Your task to perform on an android device: Add usb-a to the cart on walmart.com, then select checkout. Image 0: 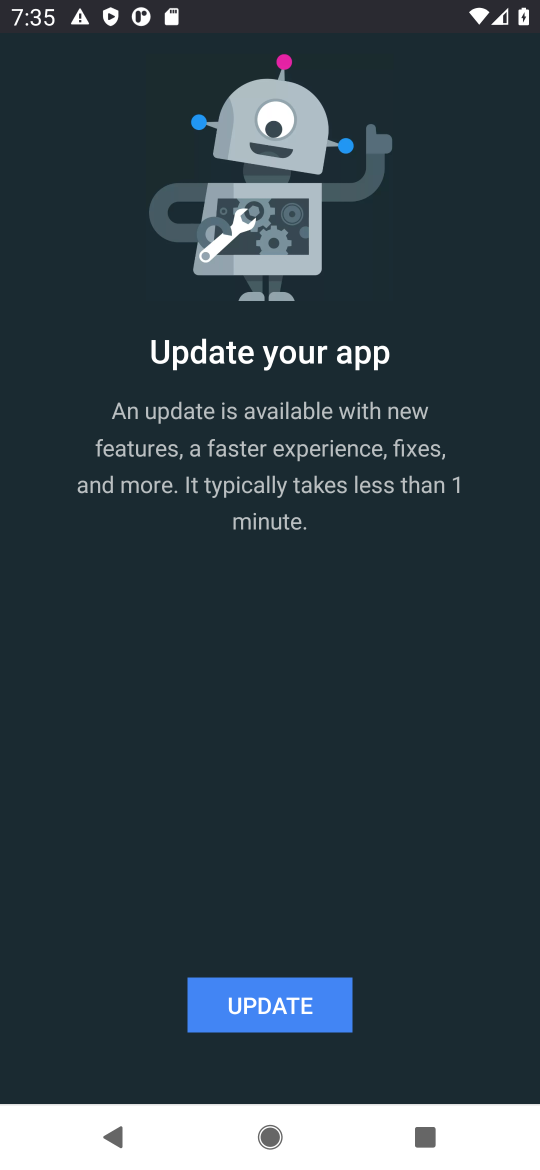
Step 0: press home button
Your task to perform on an android device: Add usb-a to the cart on walmart.com, then select checkout. Image 1: 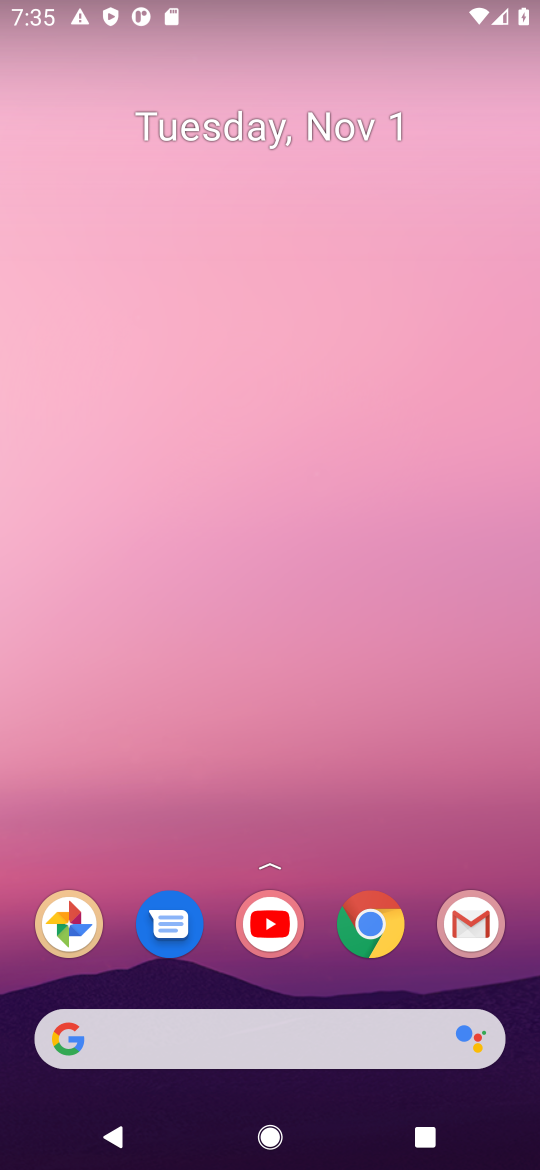
Step 1: click (108, 1041)
Your task to perform on an android device: Add usb-a to the cart on walmart.com, then select checkout. Image 2: 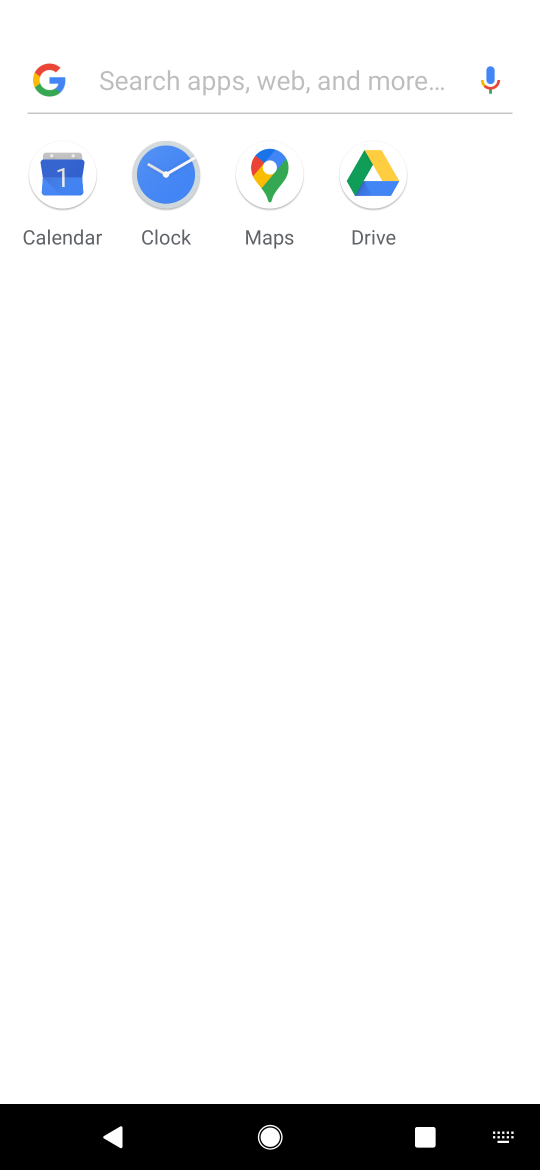
Step 2: type "walmart.com"
Your task to perform on an android device: Add usb-a to the cart on walmart.com, then select checkout. Image 3: 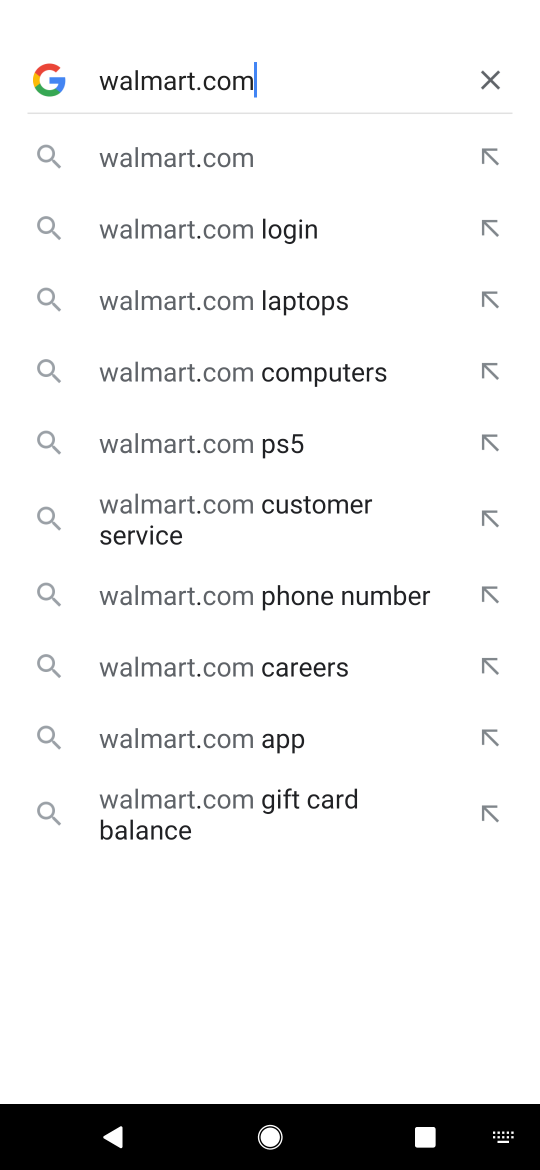
Step 3: press enter
Your task to perform on an android device: Add usb-a to the cart on walmart.com, then select checkout. Image 4: 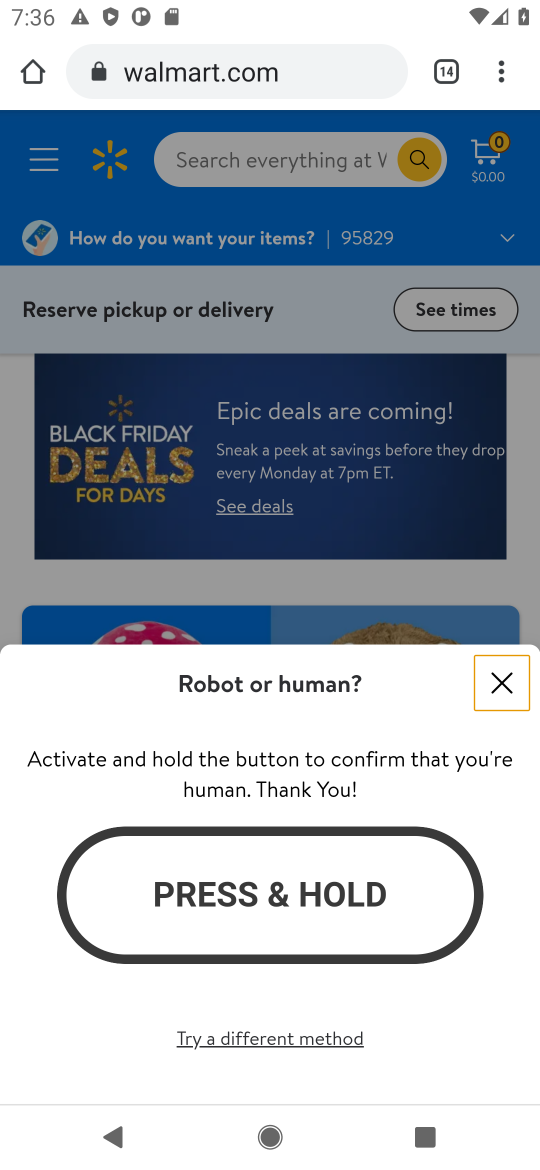
Step 4: click (189, 906)
Your task to perform on an android device: Add usb-a to the cart on walmart.com, then select checkout. Image 5: 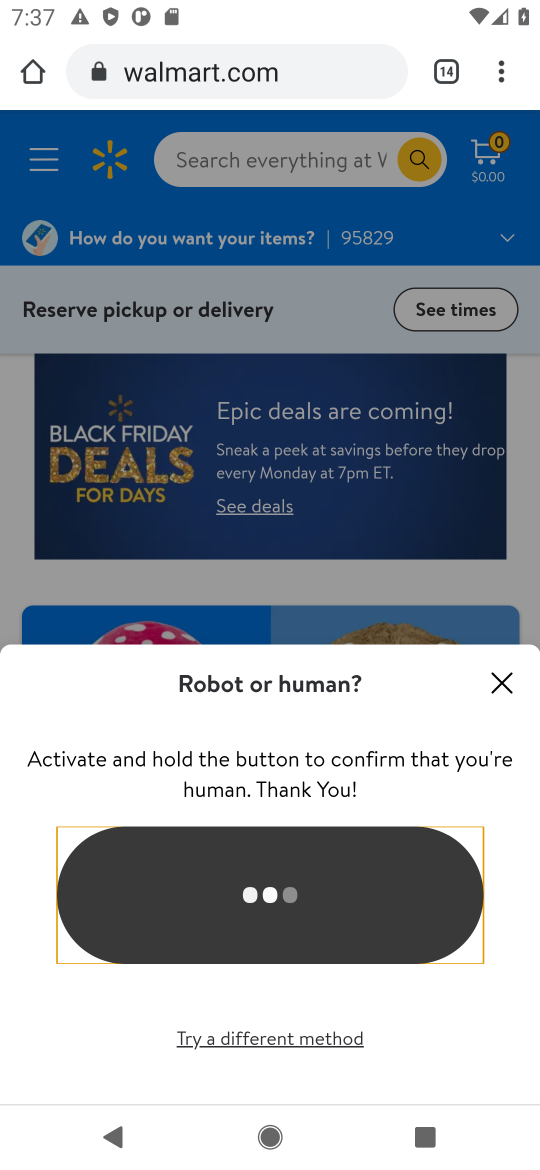
Step 5: task complete